Your task to perform on an android device: Go to ESPN.com Image 0: 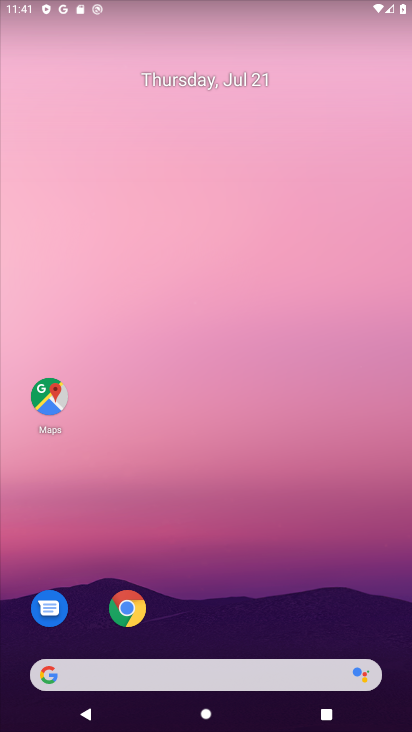
Step 0: press home button
Your task to perform on an android device: Go to ESPN.com Image 1: 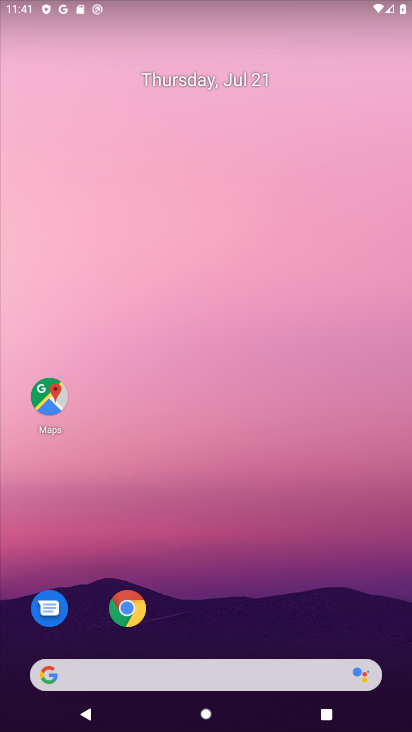
Step 1: drag from (208, 346) to (204, 99)
Your task to perform on an android device: Go to ESPN.com Image 2: 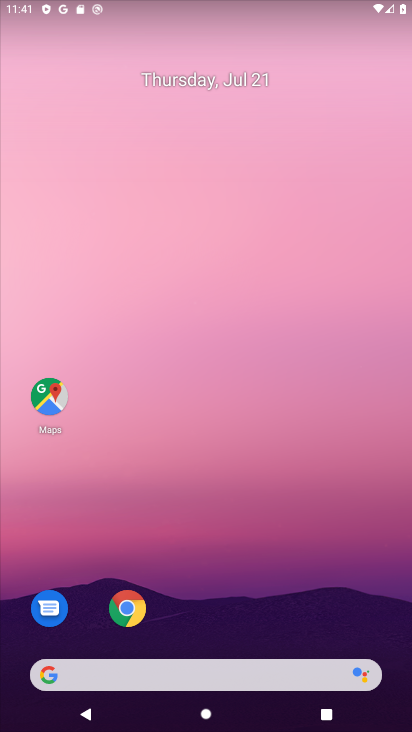
Step 2: click (127, 603)
Your task to perform on an android device: Go to ESPN.com Image 3: 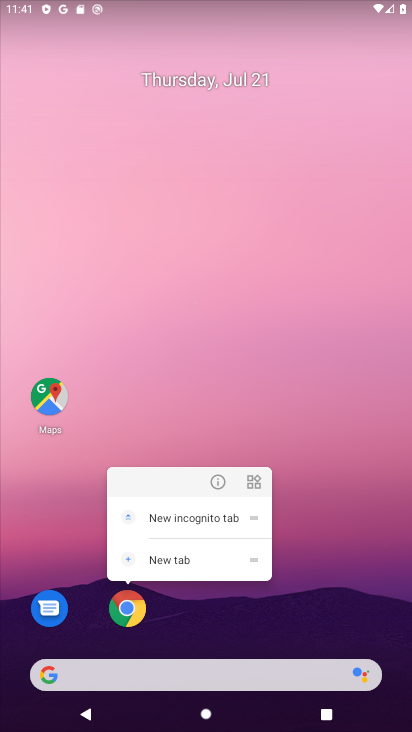
Step 3: click (122, 606)
Your task to perform on an android device: Go to ESPN.com Image 4: 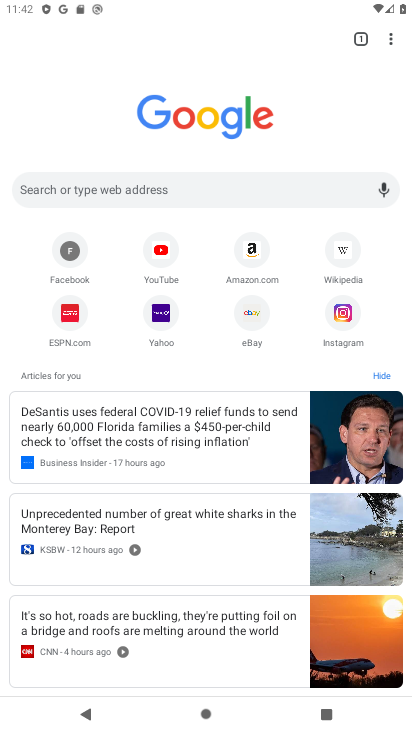
Step 4: click (73, 302)
Your task to perform on an android device: Go to ESPN.com Image 5: 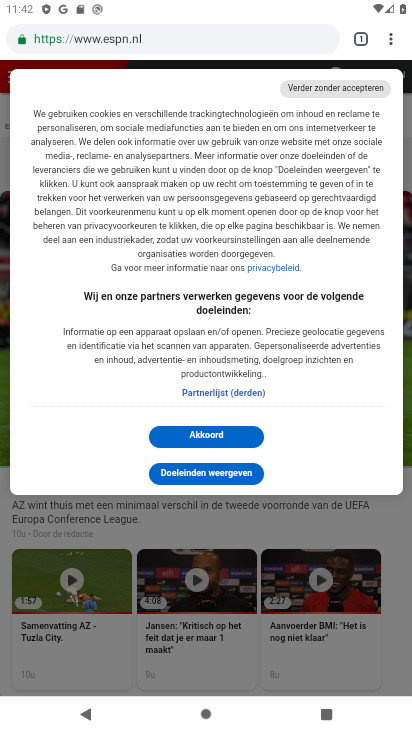
Step 5: click (181, 437)
Your task to perform on an android device: Go to ESPN.com Image 6: 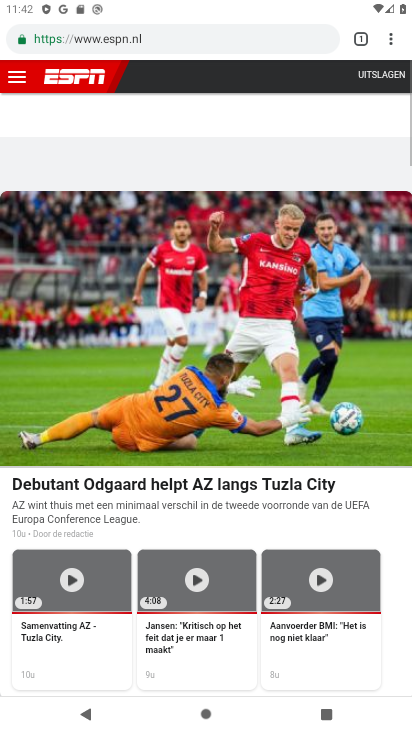
Step 6: task complete